Your task to perform on an android device: Open the map Image 0: 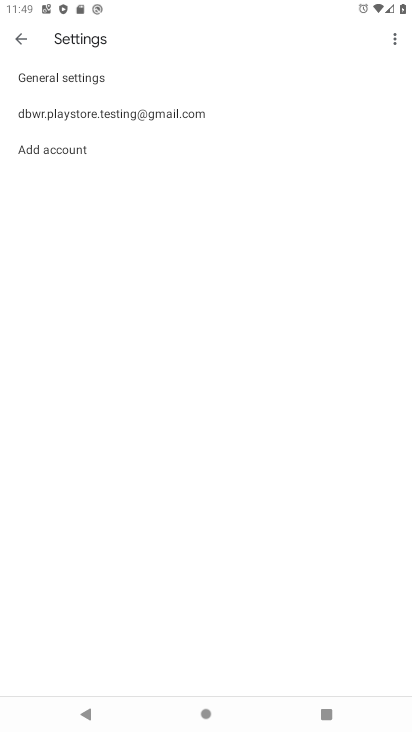
Step 0: press home button
Your task to perform on an android device: Open the map Image 1: 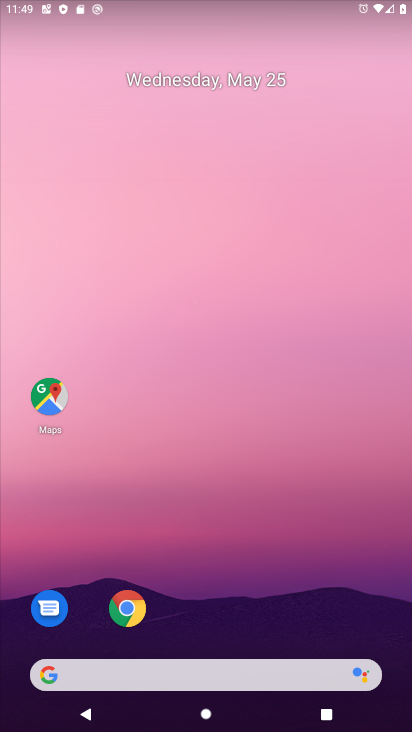
Step 1: drag from (224, 722) to (224, 137)
Your task to perform on an android device: Open the map Image 2: 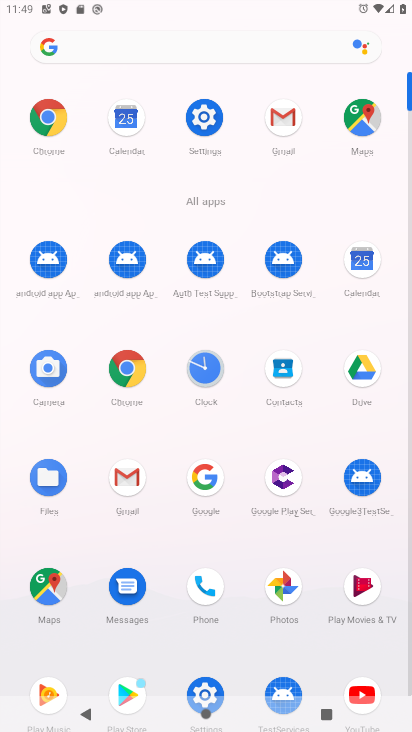
Step 2: click (46, 584)
Your task to perform on an android device: Open the map Image 3: 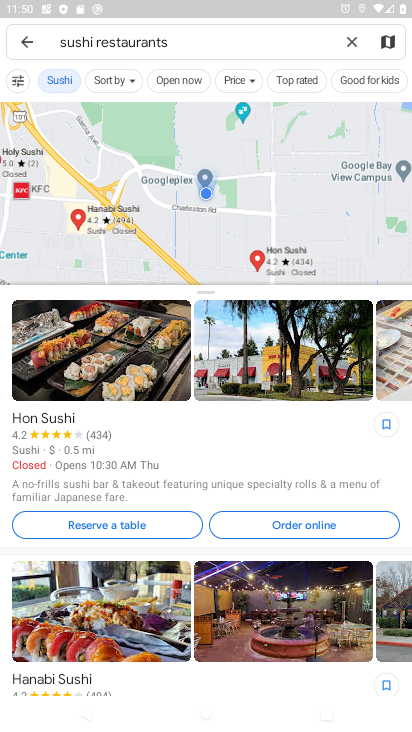
Step 3: task complete